Your task to perform on an android device: Open Google Chrome Image 0: 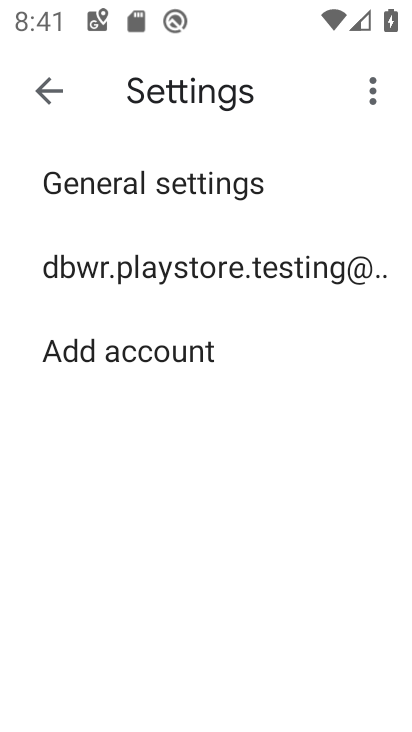
Step 0: press back button
Your task to perform on an android device: Open Google Chrome Image 1: 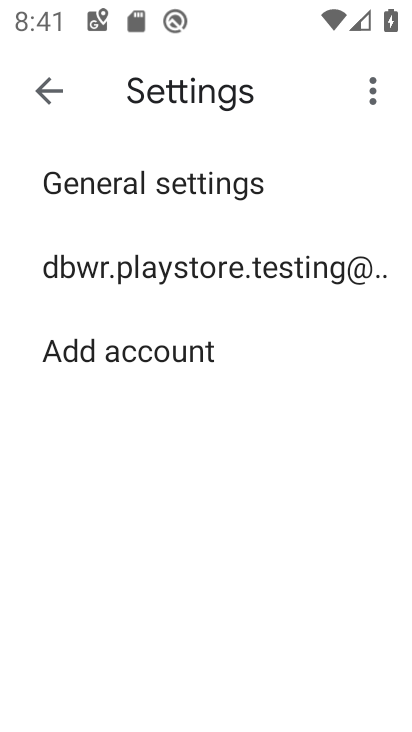
Step 1: press back button
Your task to perform on an android device: Open Google Chrome Image 2: 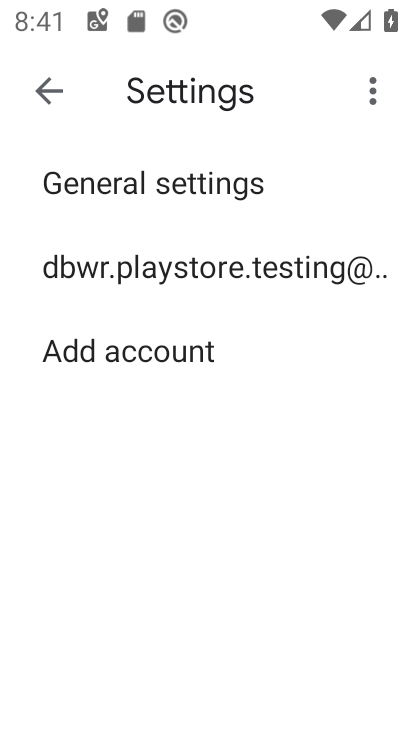
Step 2: press back button
Your task to perform on an android device: Open Google Chrome Image 3: 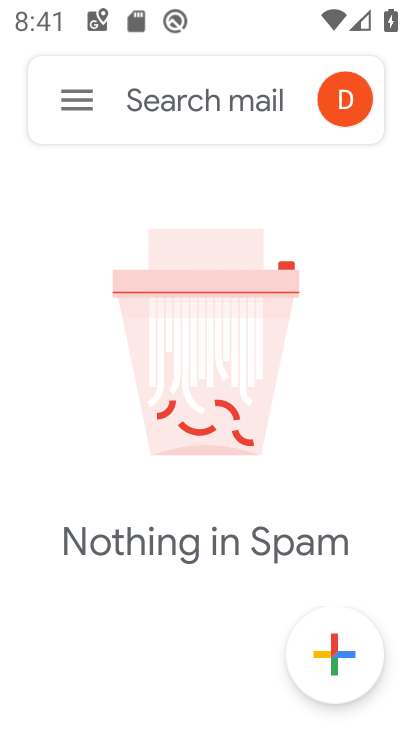
Step 3: press home button
Your task to perform on an android device: Open Google Chrome Image 4: 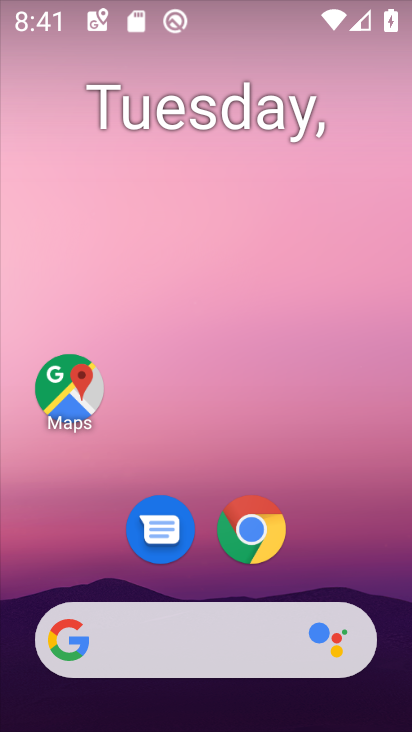
Step 4: click (256, 539)
Your task to perform on an android device: Open Google Chrome Image 5: 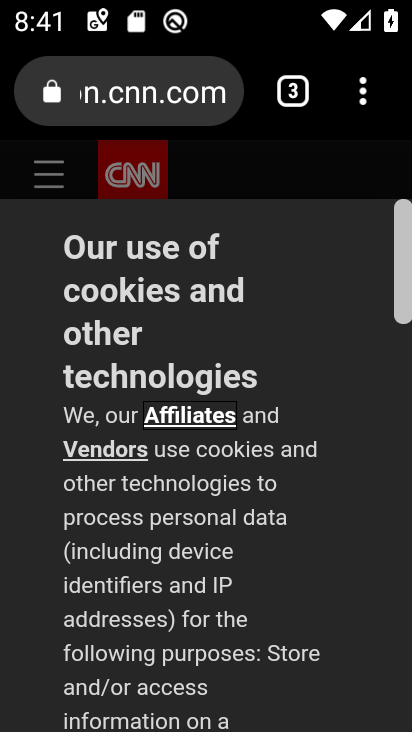
Step 5: task complete